Your task to perform on an android device: Search for Mexican restaurants on Maps Image 0: 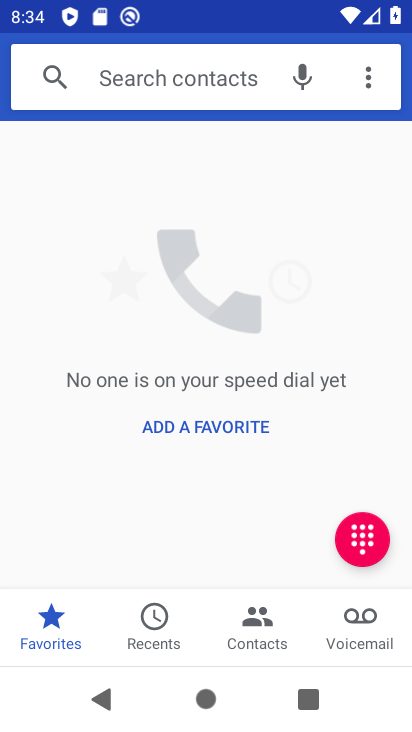
Step 0: press home button
Your task to perform on an android device: Search for Mexican restaurants on Maps Image 1: 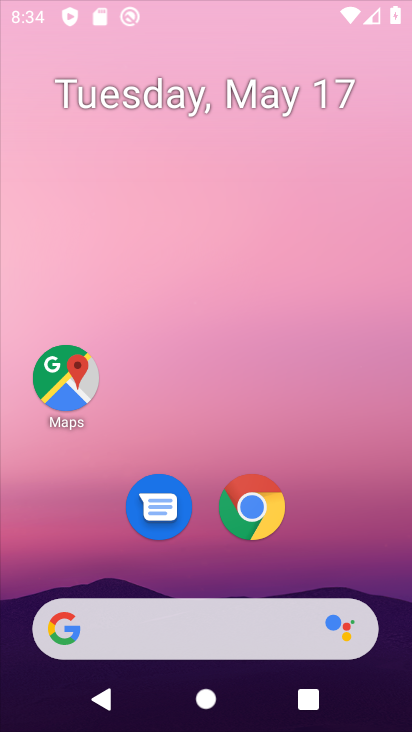
Step 1: drag from (248, 661) to (271, 19)
Your task to perform on an android device: Search for Mexican restaurants on Maps Image 2: 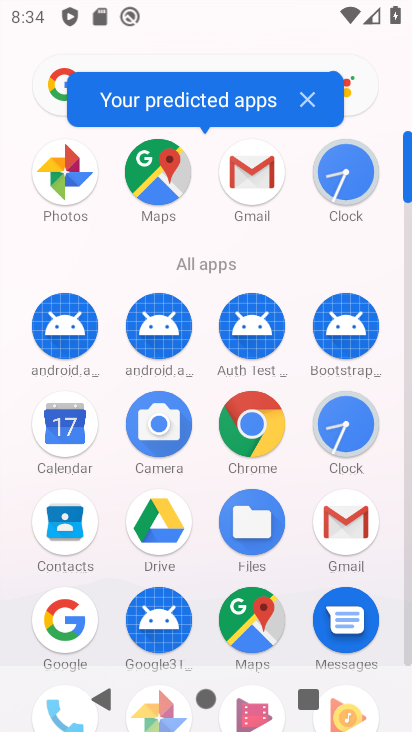
Step 2: click (264, 634)
Your task to perform on an android device: Search for Mexican restaurants on Maps Image 3: 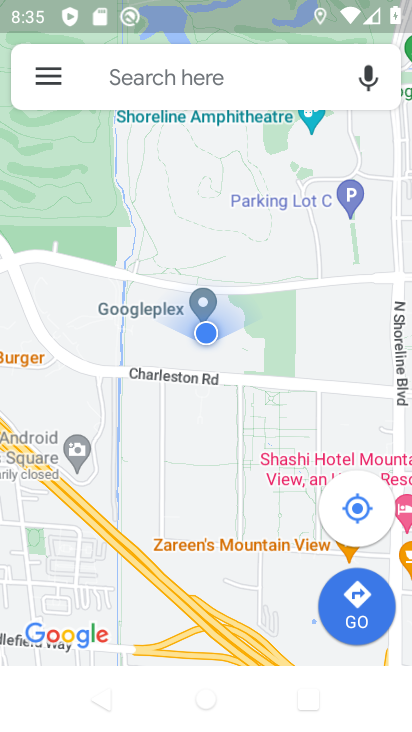
Step 3: click (197, 82)
Your task to perform on an android device: Search for Mexican restaurants on Maps Image 4: 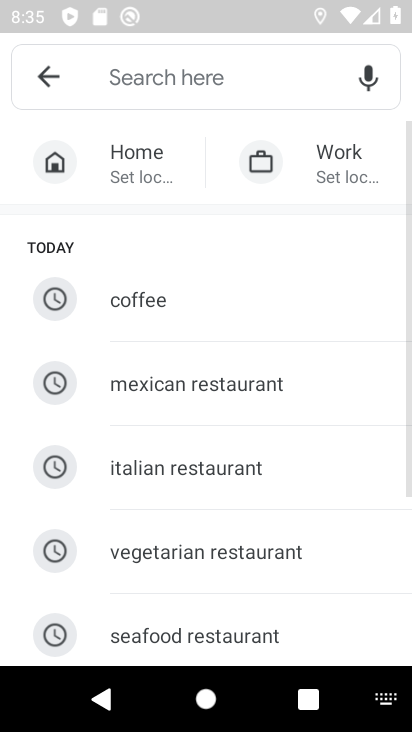
Step 4: click (206, 374)
Your task to perform on an android device: Search for Mexican restaurants on Maps Image 5: 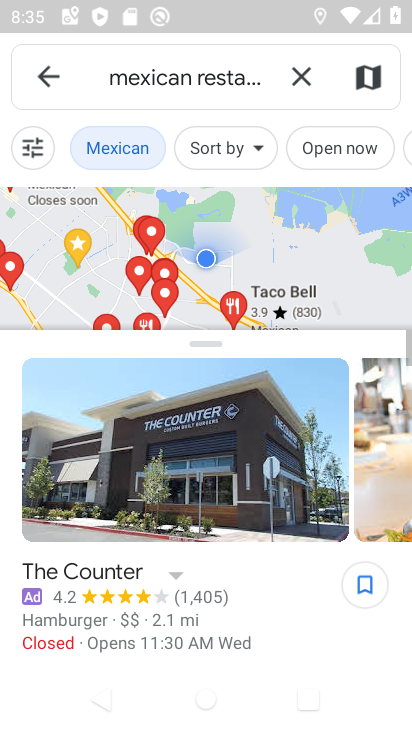
Step 5: task complete